Your task to perform on an android device: Search for "rayovac triple a" on ebay.com, select the first entry, and add it to the cart. Image 0: 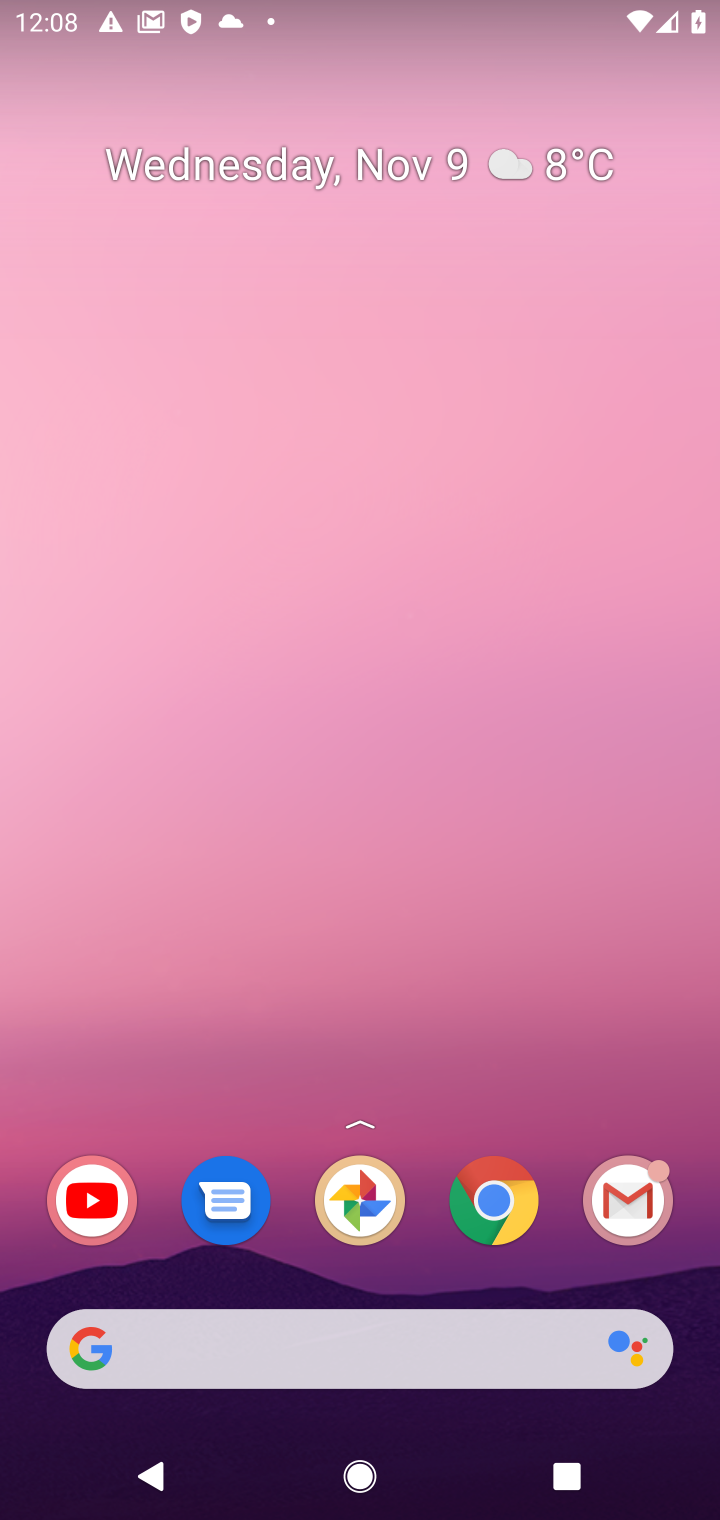
Step 0: click (296, 1337)
Your task to perform on an android device: Search for "rayovac triple a" on ebay.com, select the first entry, and add it to the cart. Image 1: 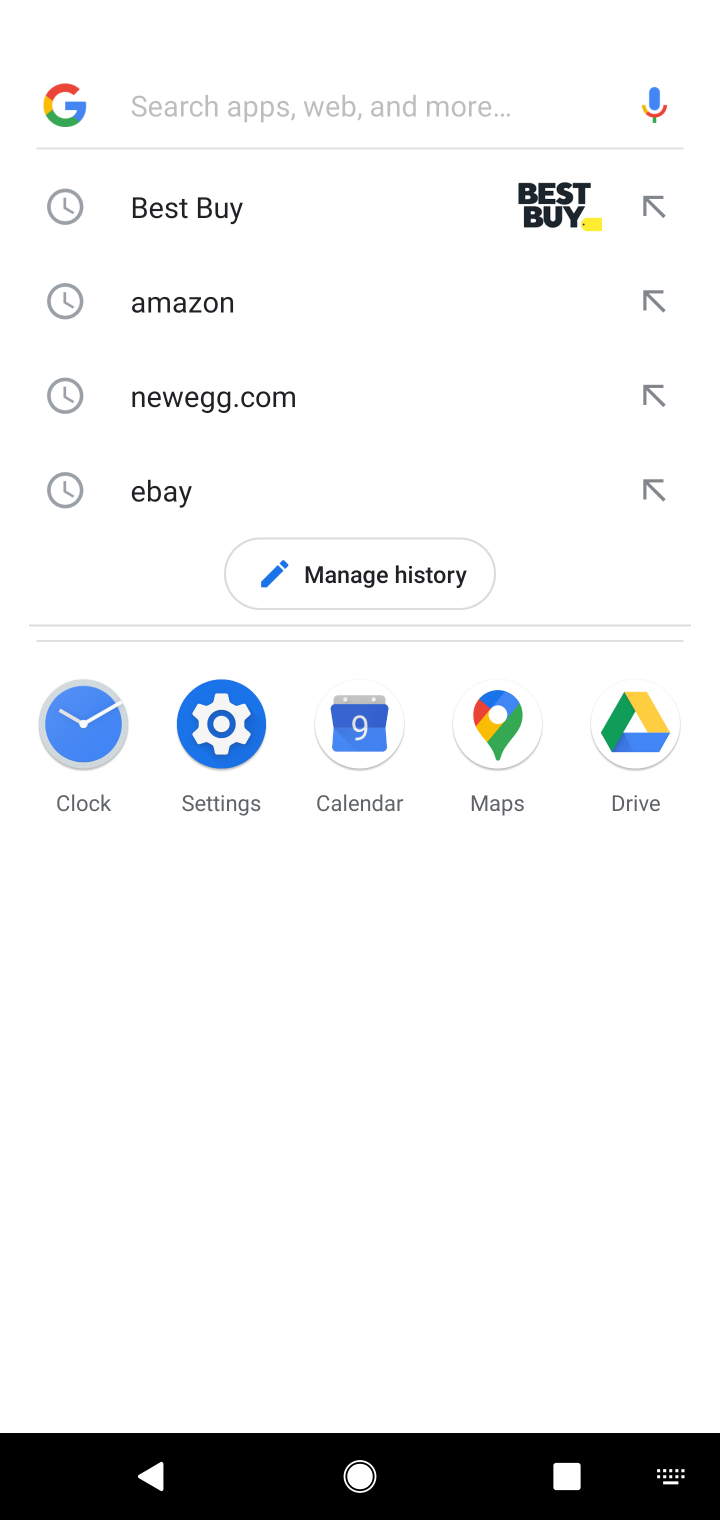
Step 1: type "ebay"
Your task to perform on an android device: Search for "rayovac triple a" on ebay.com, select the first entry, and add it to the cart. Image 2: 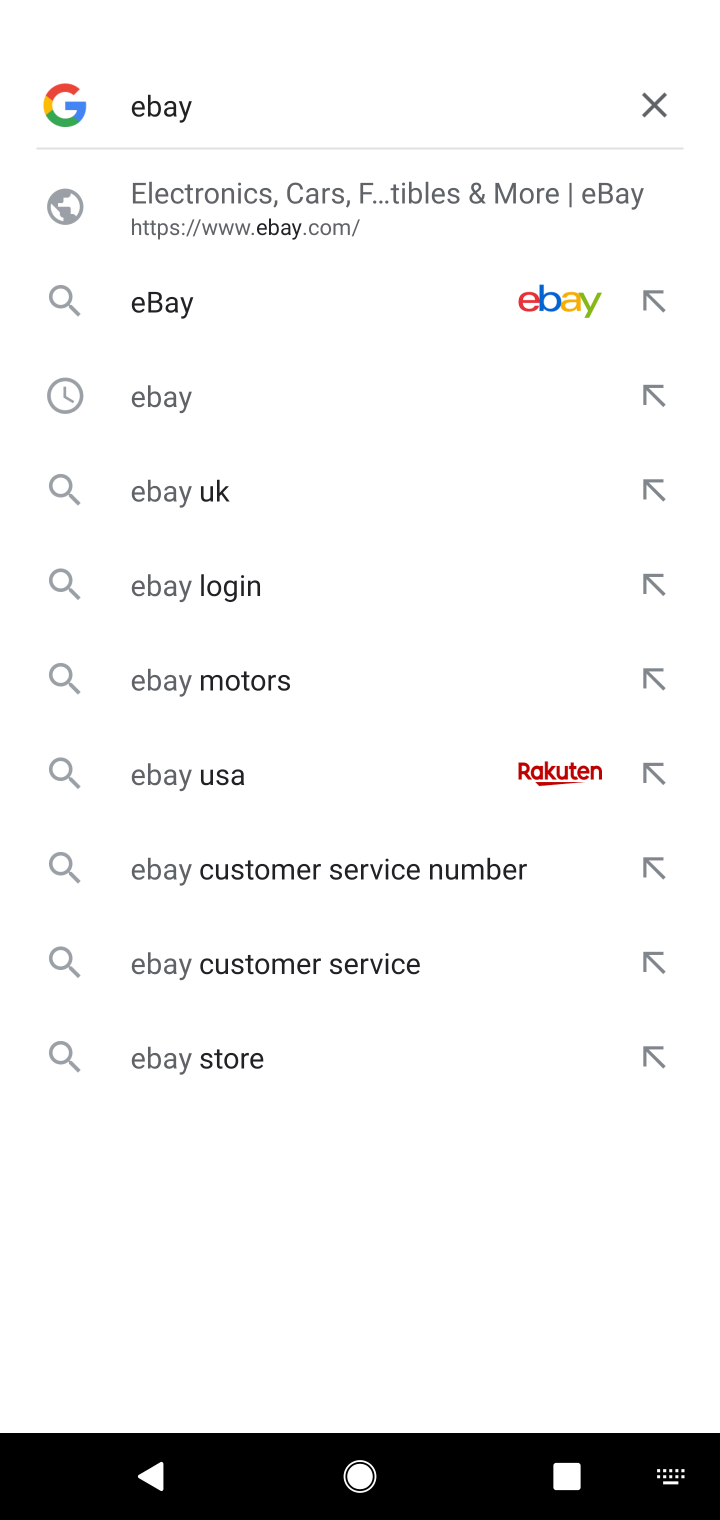
Step 2: click (171, 308)
Your task to perform on an android device: Search for "rayovac triple a" on ebay.com, select the first entry, and add it to the cart. Image 3: 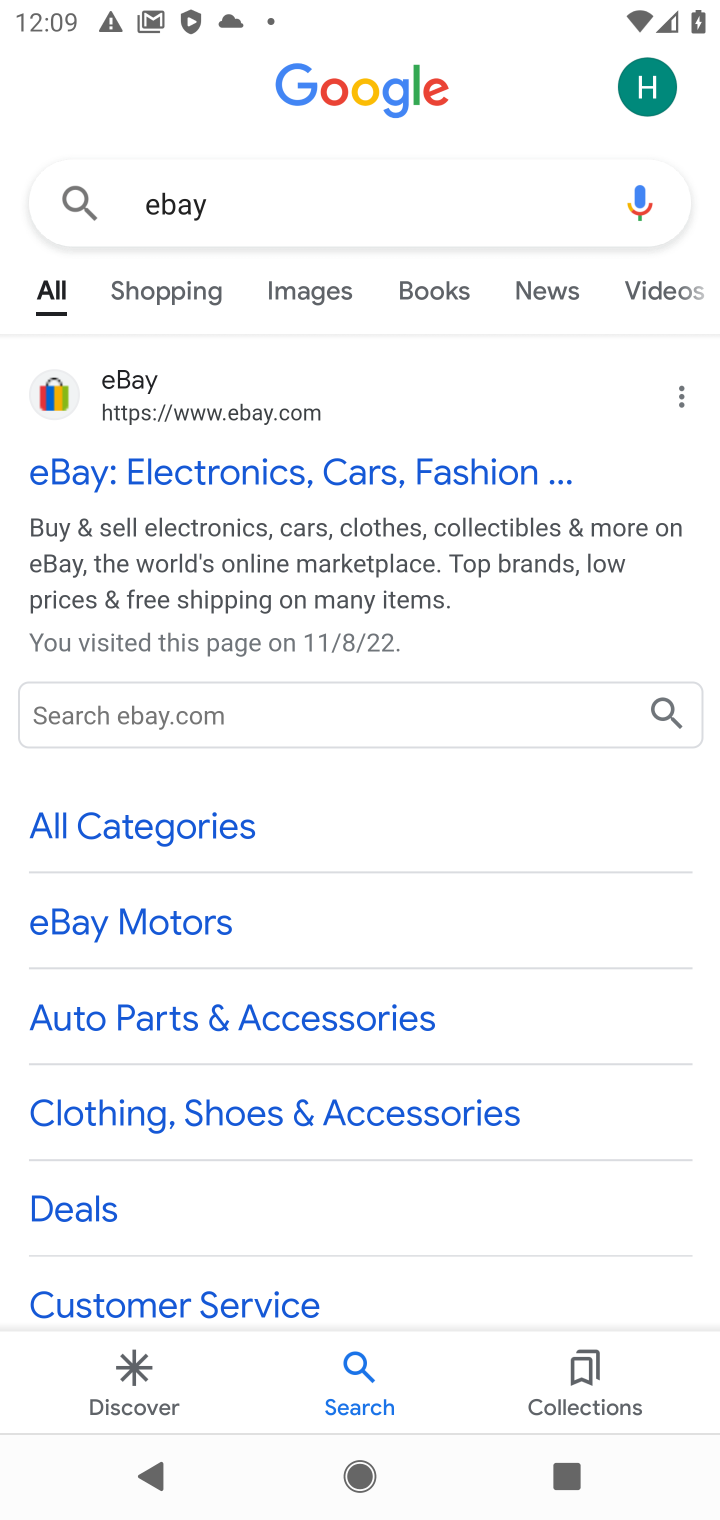
Step 3: click (199, 420)
Your task to perform on an android device: Search for "rayovac triple a" on ebay.com, select the first entry, and add it to the cart. Image 4: 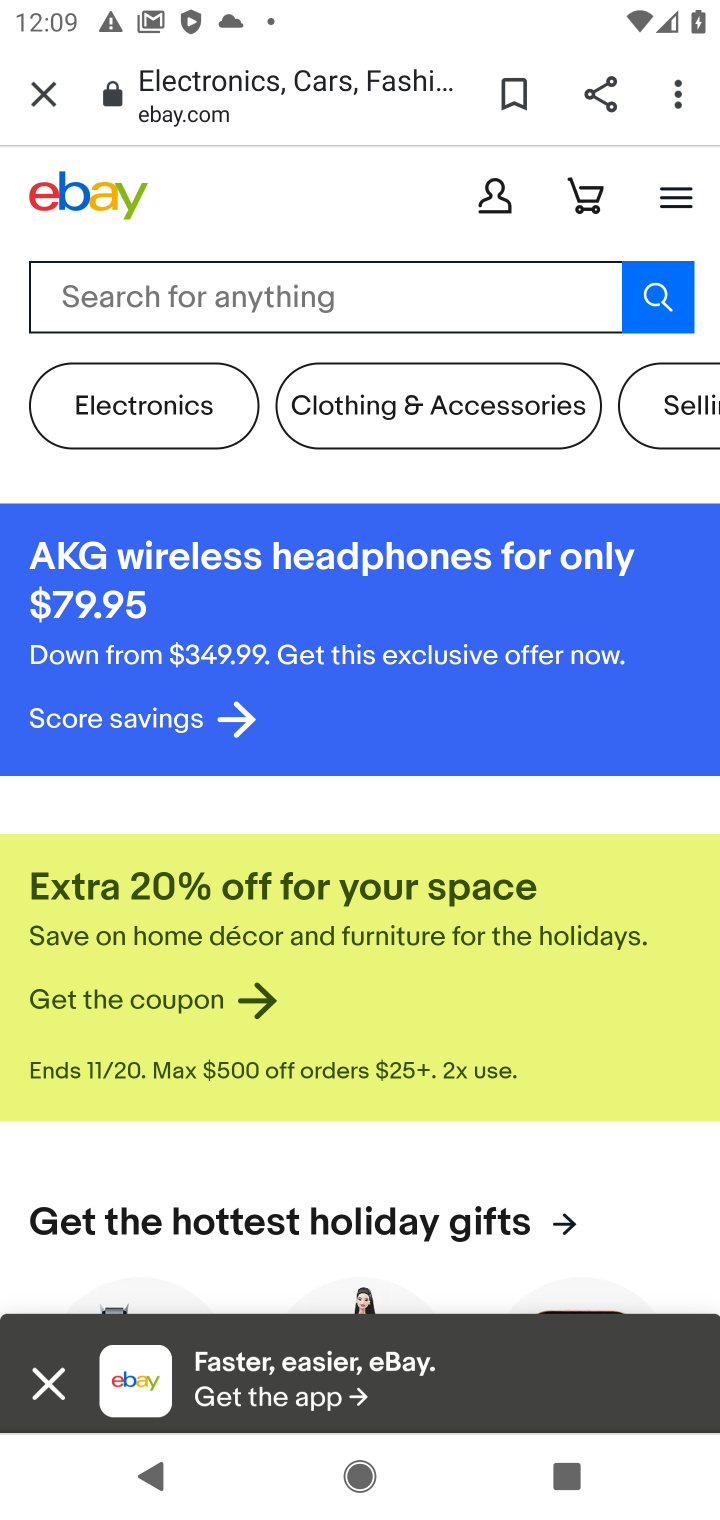
Step 4: click (393, 281)
Your task to perform on an android device: Search for "rayovac triple a" on ebay.com, select the first entry, and add it to the cart. Image 5: 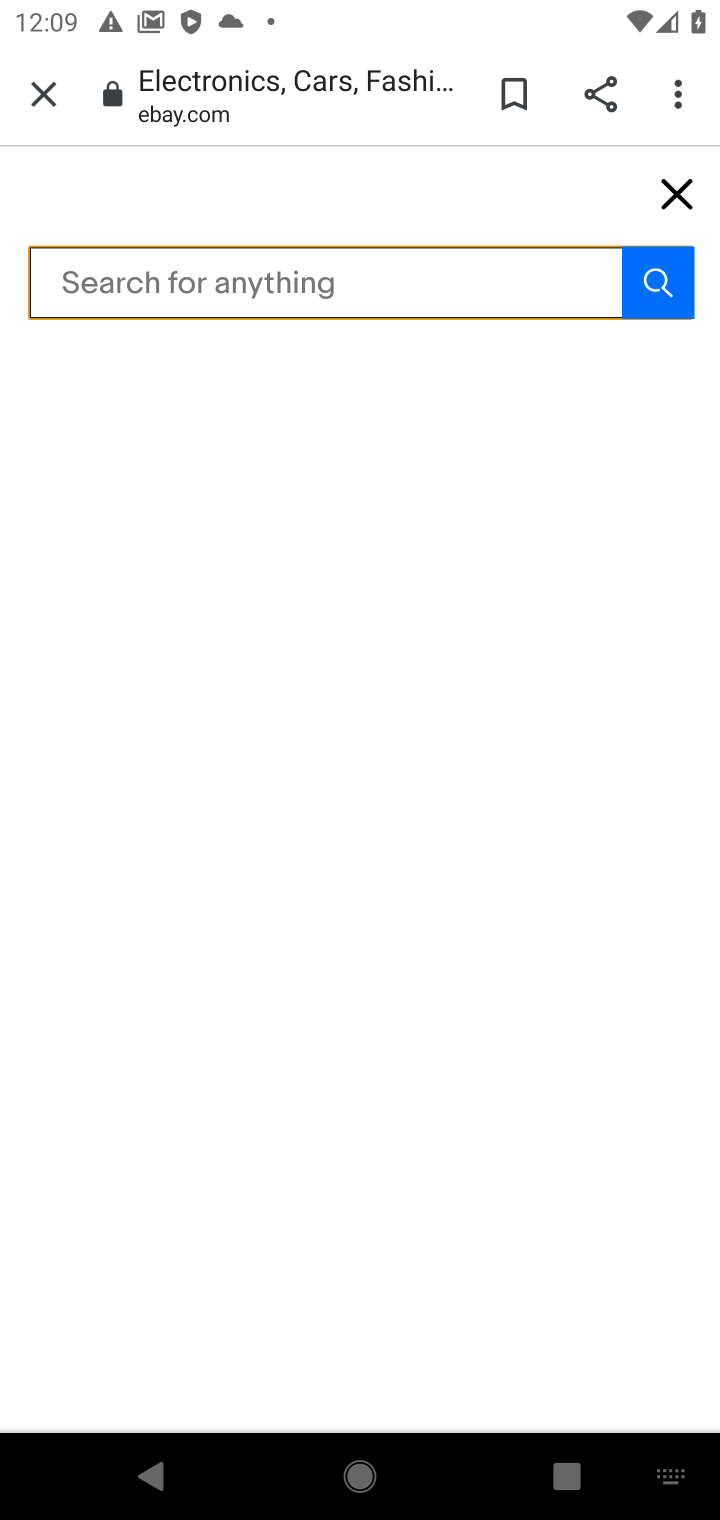
Step 5: type "rayovac triple aa"
Your task to perform on an android device: Search for "rayovac triple a" on ebay.com, select the first entry, and add it to the cart. Image 6: 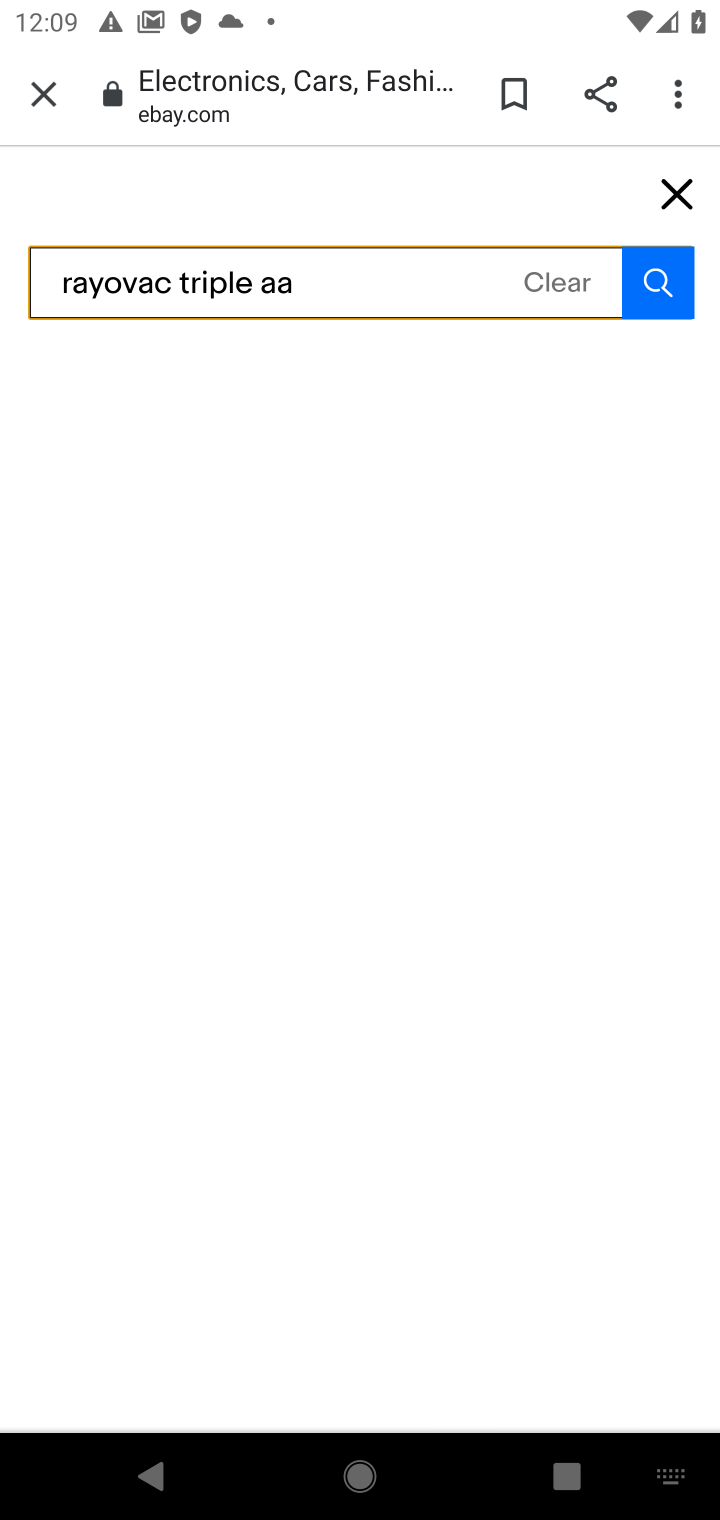
Step 6: click (655, 291)
Your task to perform on an android device: Search for "rayovac triple a" on ebay.com, select the first entry, and add it to the cart. Image 7: 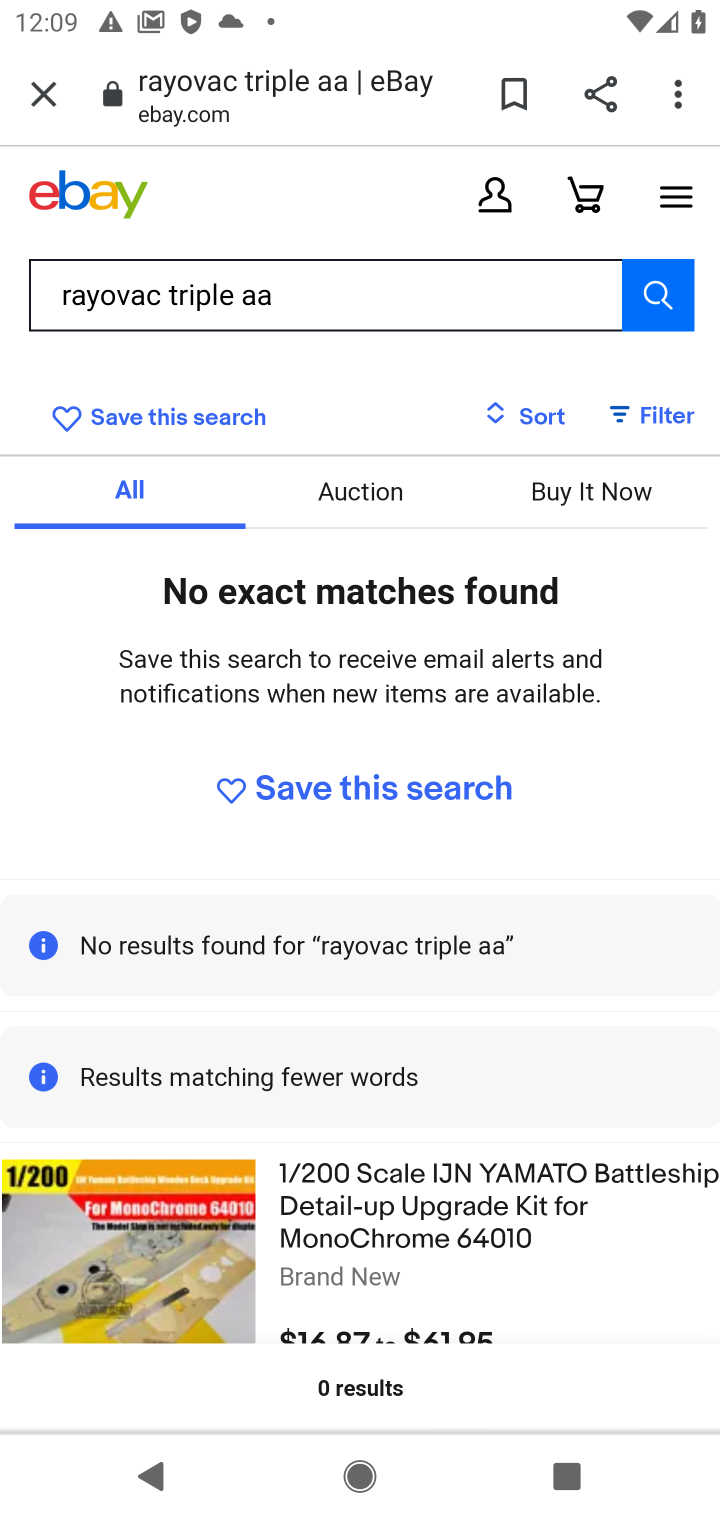
Step 7: task complete